Your task to perform on an android device: Open eBay Image 0: 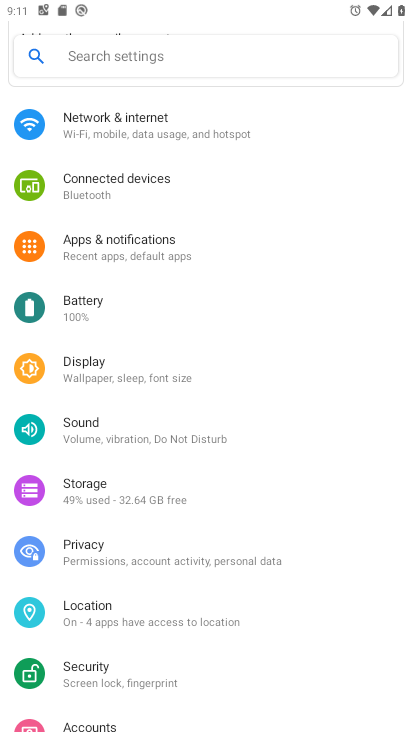
Step 0: press home button
Your task to perform on an android device: Open eBay Image 1: 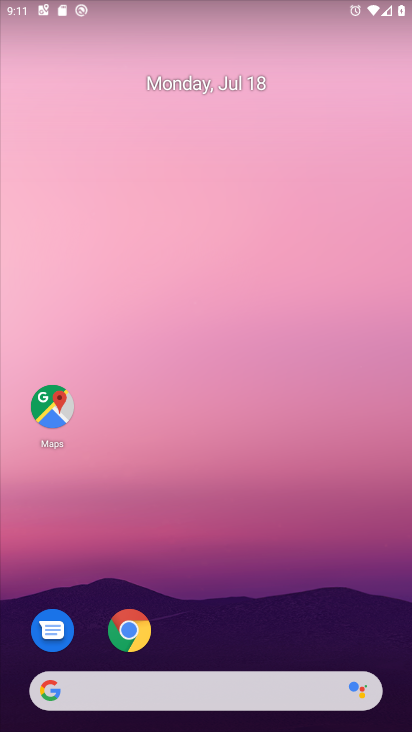
Step 1: click (143, 633)
Your task to perform on an android device: Open eBay Image 2: 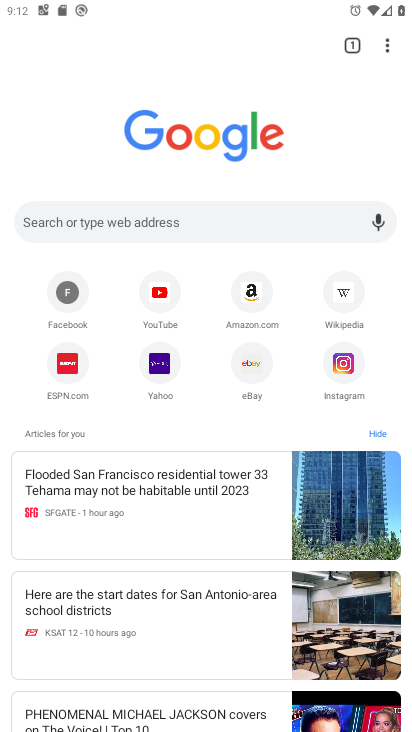
Step 2: click (243, 374)
Your task to perform on an android device: Open eBay Image 3: 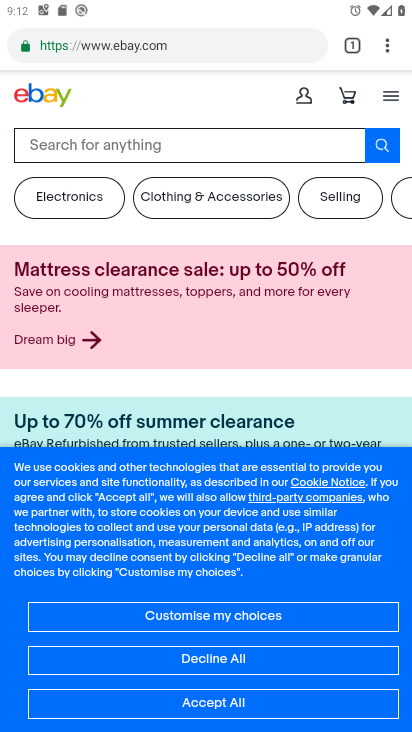
Step 3: task complete